Your task to perform on an android device: toggle data saver in the chrome app Image 0: 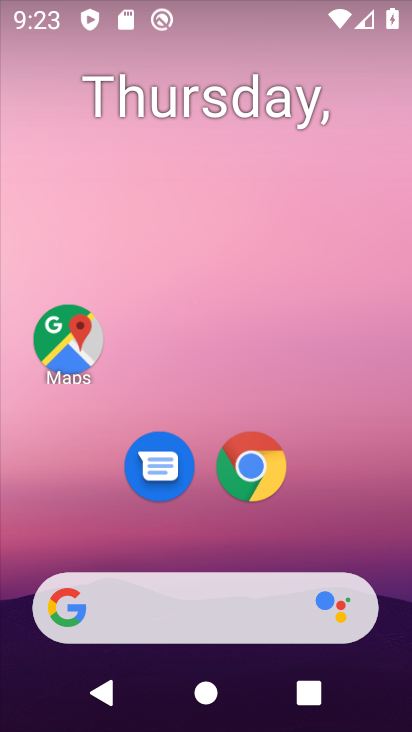
Step 0: drag from (392, 470) to (388, 89)
Your task to perform on an android device: toggle data saver in the chrome app Image 1: 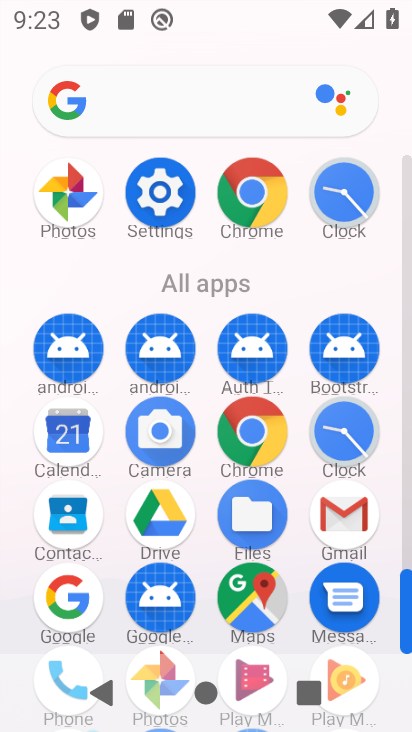
Step 1: click (269, 439)
Your task to perform on an android device: toggle data saver in the chrome app Image 2: 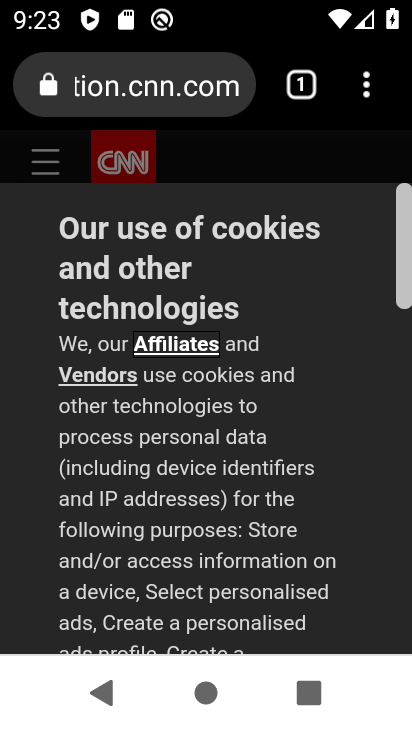
Step 2: drag from (368, 106) to (185, 539)
Your task to perform on an android device: toggle data saver in the chrome app Image 3: 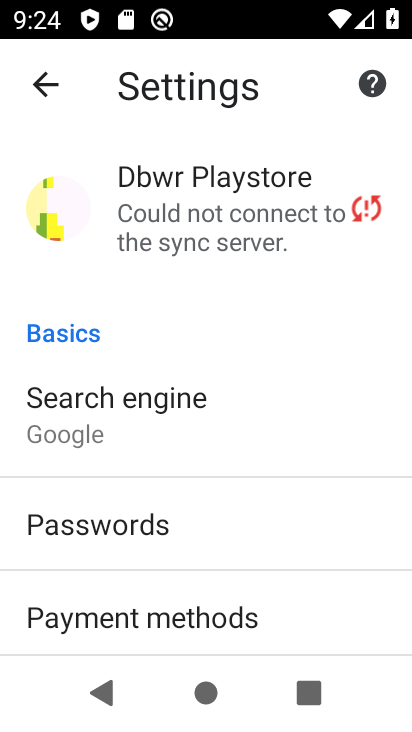
Step 3: drag from (277, 601) to (285, 338)
Your task to perform on an android device: toggle data saver in the chrome app Image 4: 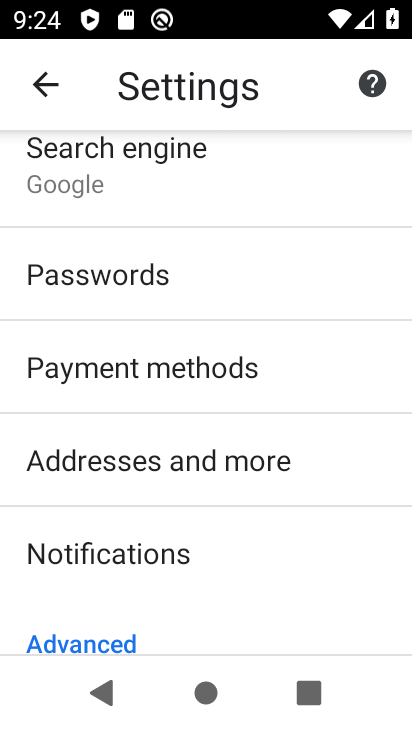
Step 4: drag from (266, 539) to (287, 244)
Your task to perform on an android device: toggle data saver in the chrome app Image 5: 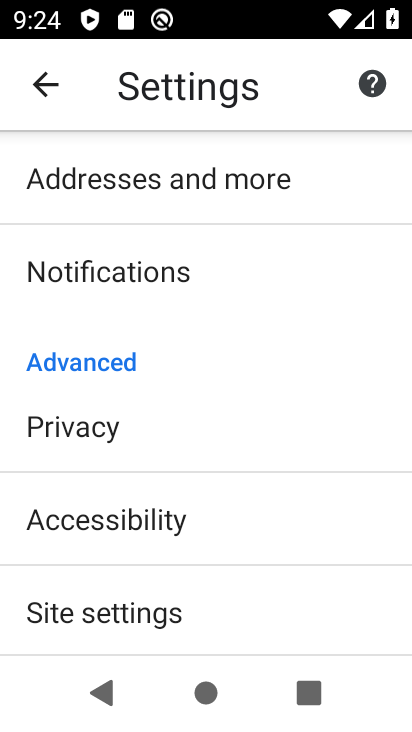
Step 5: drag from (255, 545) to (297, 305)
Your task to perform on an android device: toggle data saver in the chrome app Image 6: 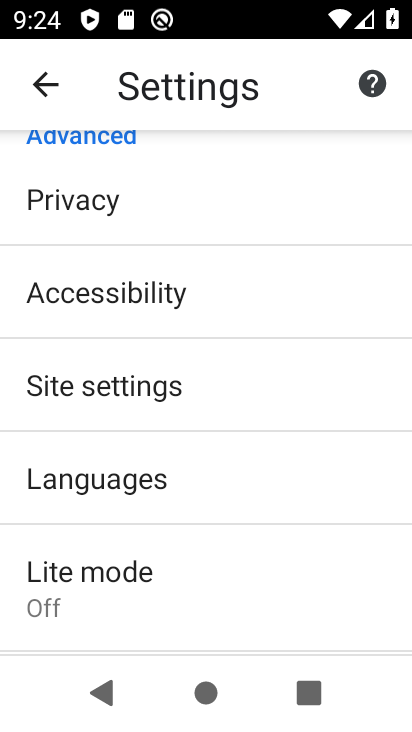
Step 6: drag from (234, 590) to (272, 270)
Your task to perform on an android device: toggle data saver in the chrome app Image 7: 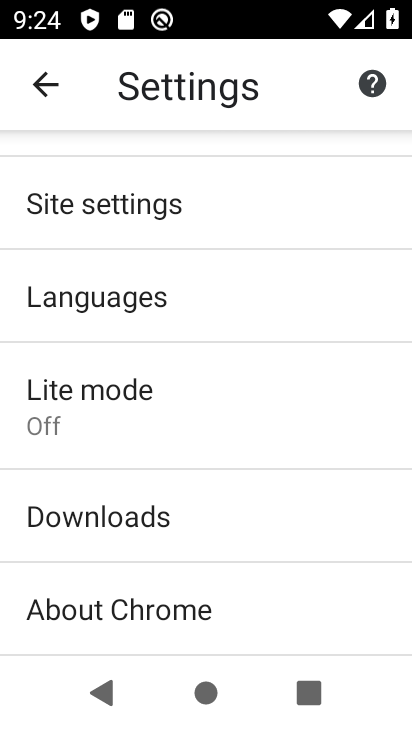
Step 7: click (133, 387)
Your task to perform on an android device: toggle data saver in the chrome app Image 8: 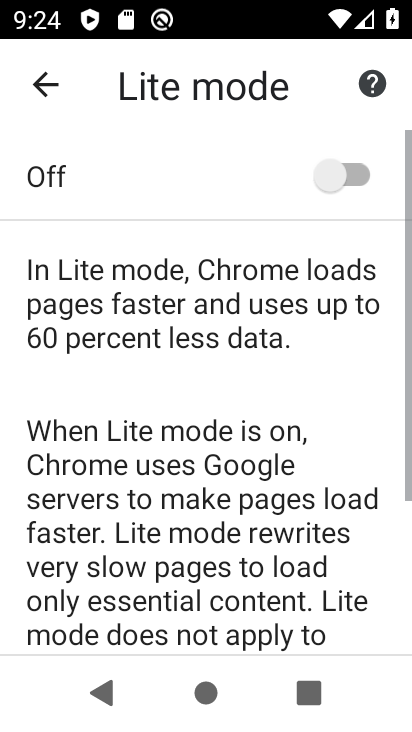
Step 8: click (362, 168)
Your task to perform on an android device: toggle data saver in the chrome app Image 9: 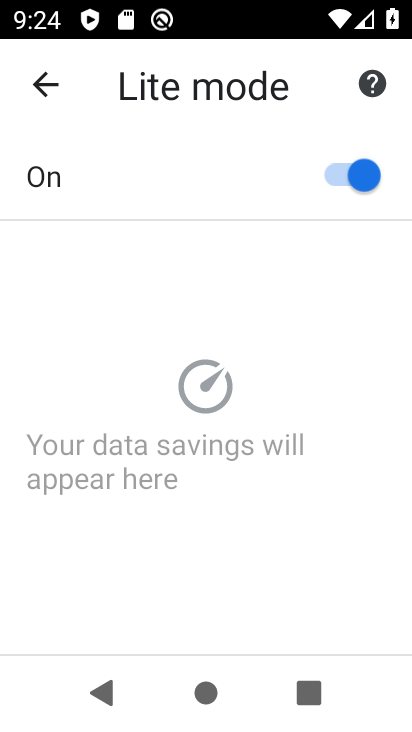
Step 9: task complete